Your task to perform on an android device: Open the map Image 0: 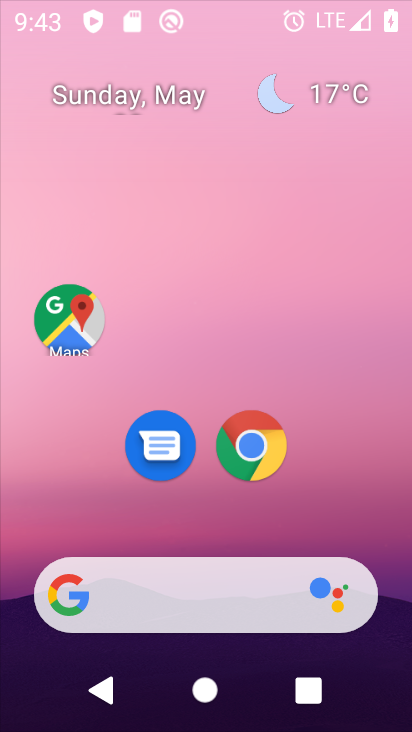
Step 0: drag from (358, 46) to (324, 35)
Your task to perform on an android device: Open the map Image 1: 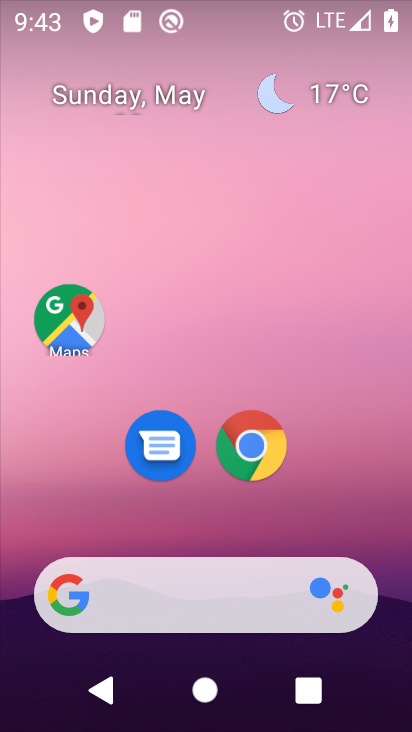
Step 1: drag from (203, 587) to (251, 243)
Your task to perform on an android device: Open the map Image 2: 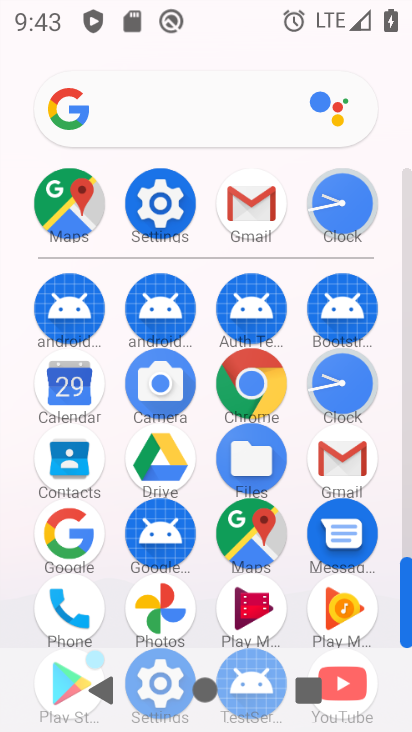
Step 2: click (54, 201)
Your task to perform on an android device: Open the map Image 3: 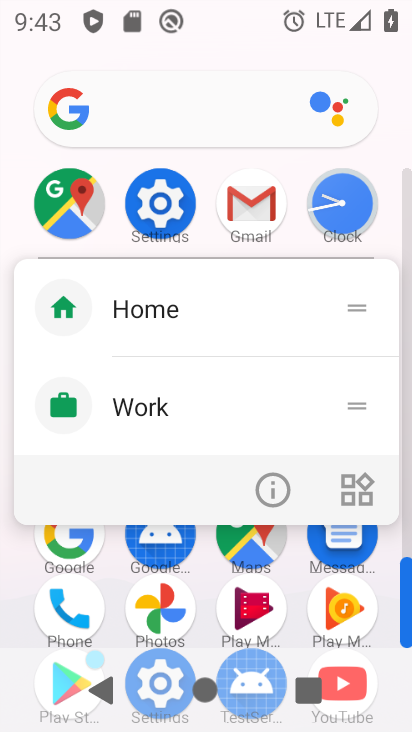
Step 3: click (256, 485)
Your task to perform on an android device: Open the map Image 4: 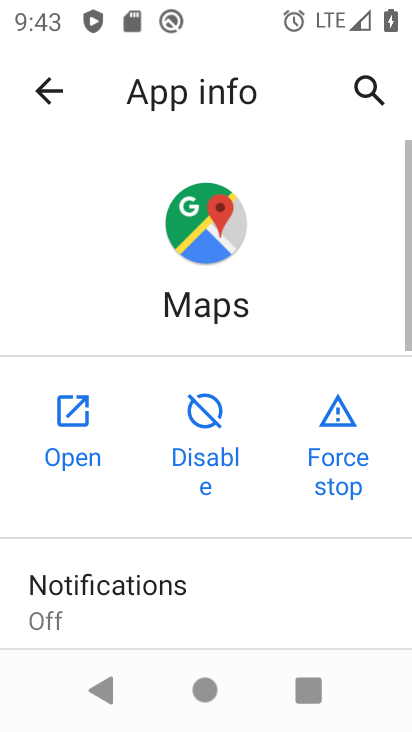
Step 4: click (75, 414)
Your task to perform on an android device: Open the map Image 5: 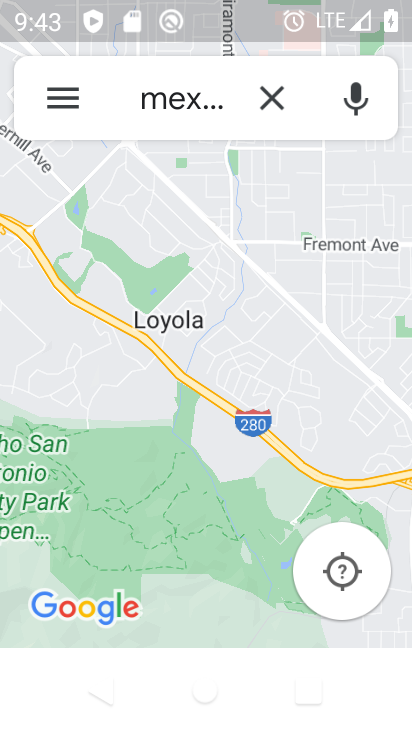
Step 5: task complete